Your task to perform on an android device: delete the emails in spam in the gmail app Image 0: 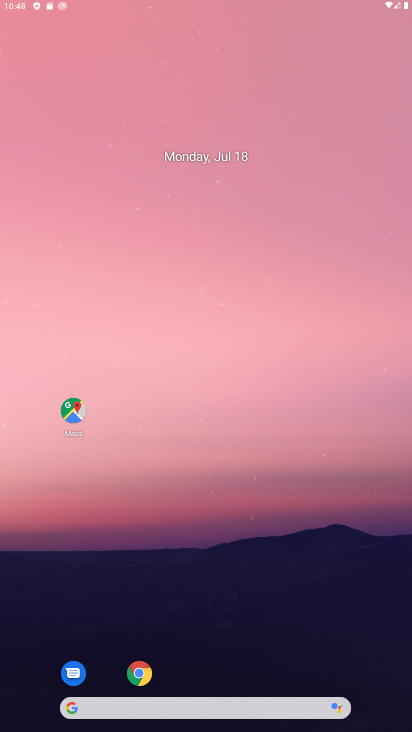
Step 0: press home button
Your task to perform on an android device: delete the emails in spam in the gmail app Image 1: 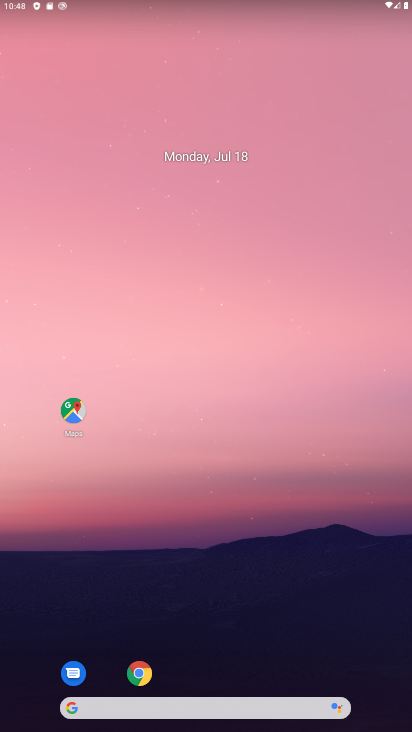
Step 1: drag from (224, 679) to (252, 3)
Your task to perform on an android device: delete the emails in spam in the gmail app Image 2: 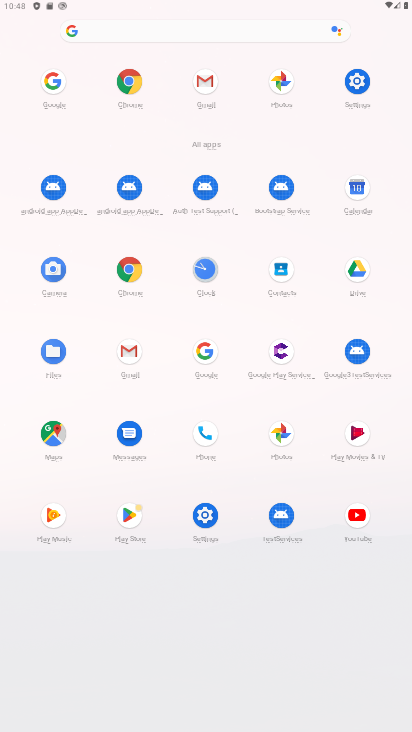
Step 2: click (125, 347)
Your task to perform on an android device: delete the emails in spam in the gmail app Image 3: 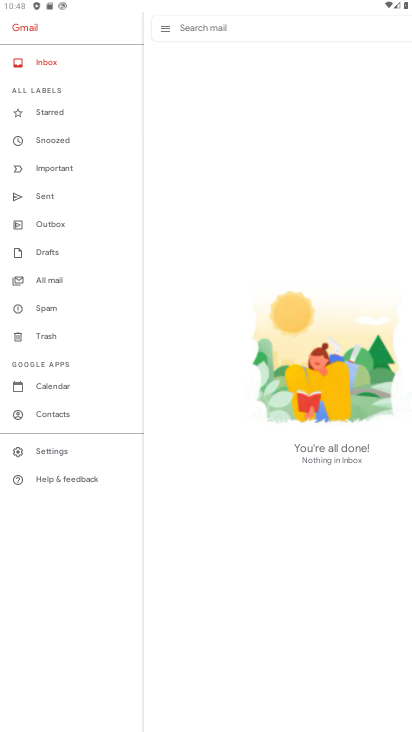
Step 3: click (57, 308)
Your task to perform on an android device: delete the emails in spam in the gmail app Image 4: 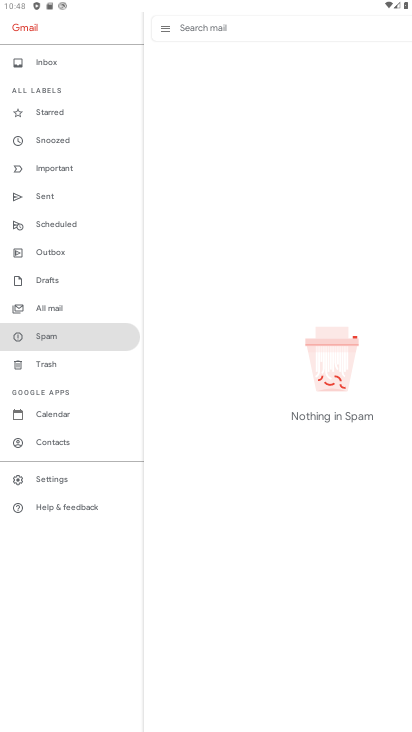
Step 4: task complete